Your task to perform on an android device: Go to ESPN.com Image 0: 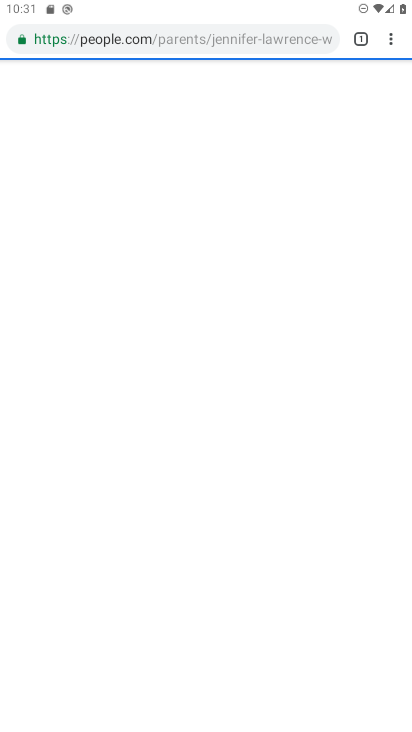
Step 0: press back button
Your task to perform on an android device: Go to ESPN.com Image 1: 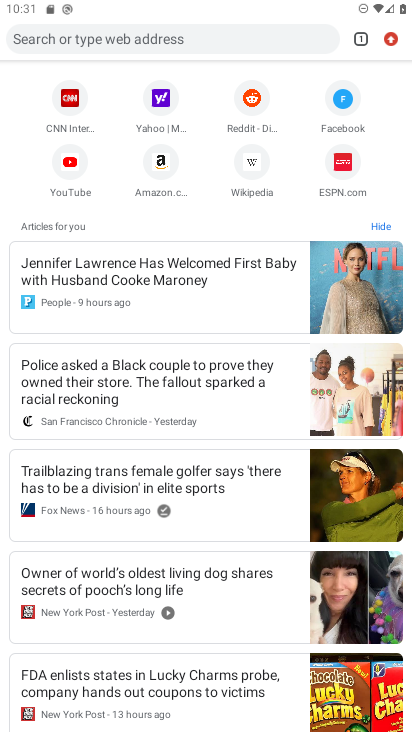
Step 1: click (356, 169)
Your task to perform on an android device: Go to ESPN.com Image 2: 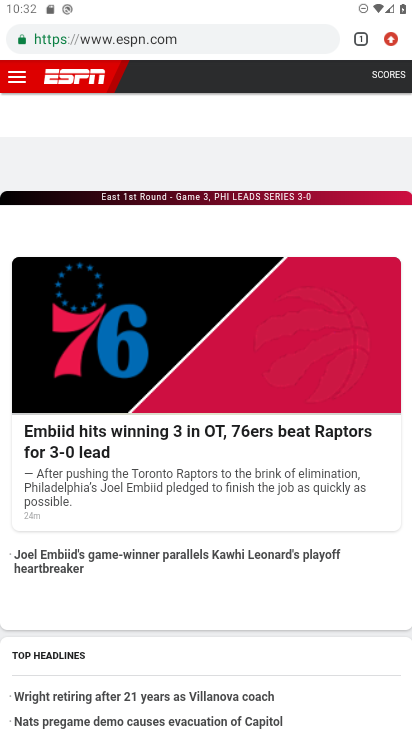
Step 2: task complete